Your task to perform on an android device: check data usage Image 0: 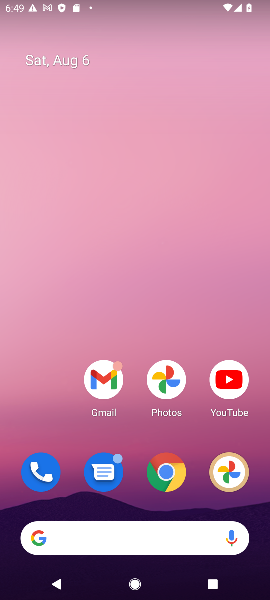
Step 0: drag from (140, 502) to (154, 68)
Your task to perform on an android device: check data usage Image 1: 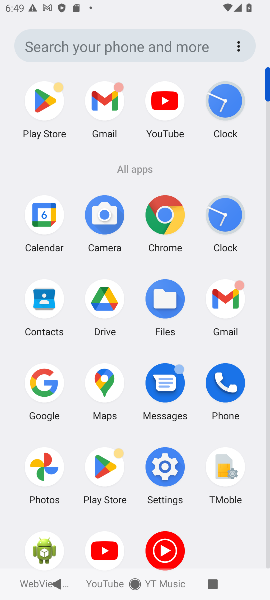
Step 1: click (164, 467)
Your task to perform on an android device: check data usage Image 2: 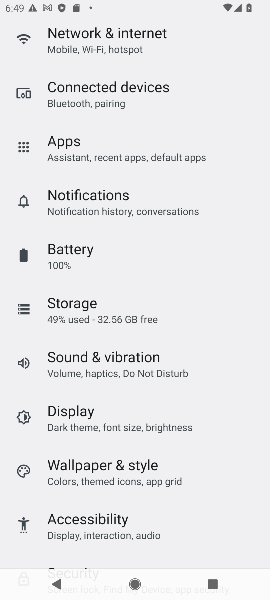
Step 2: drag from (233, 105) to (230, 311)
Your task to perform on an android device: check data usage Image 3: 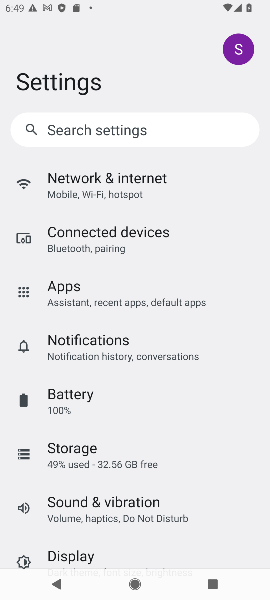
Step 3: click (79, 177)
Your task to perform on an android device: check data usage Image 4: 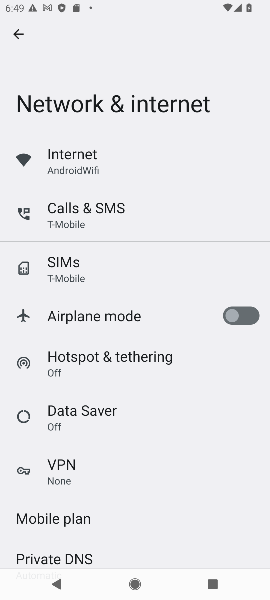
Step 4: click (72, 162)
Your task to perform on an android device: check data usage Image 5: 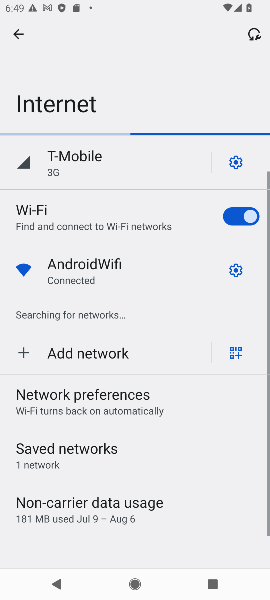
Step 5: drag from (171, 462) to (172, 245)
Your task to perform on an android device: check data usage Image 6: 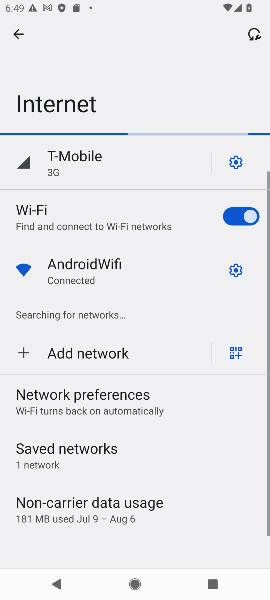
Step 6: click (228, 160)
Your task to perform on an android device: check data usage Image 7: 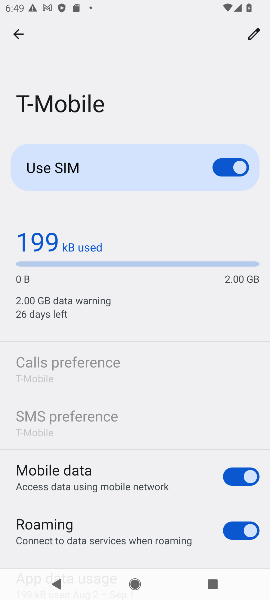
Step 7: task complete